Your task to perform on an android device: Open display settings Image 0: 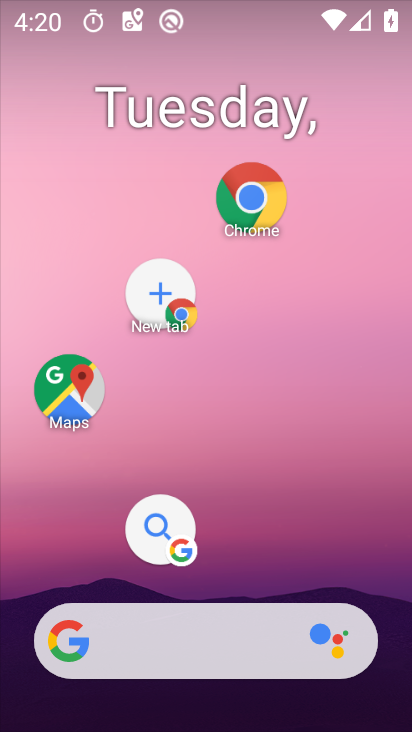
Step 0: drag from (261, 604) to (272, 184)
Your task to perform on an android device: Open display settings Image 1: 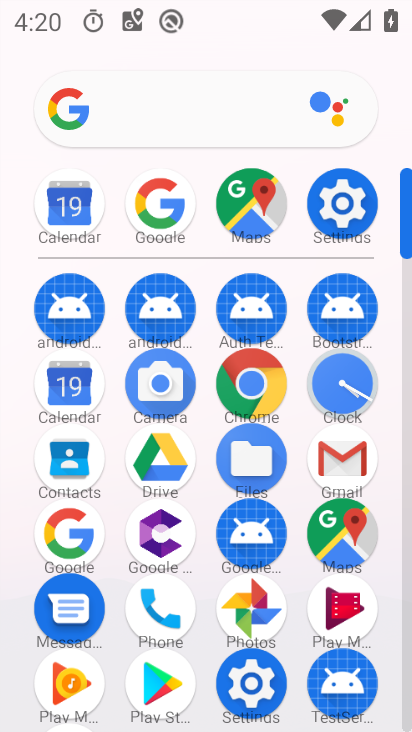
Step 1: click (348, 216)
Your task to perform on an android device: Open display settings Image 2: 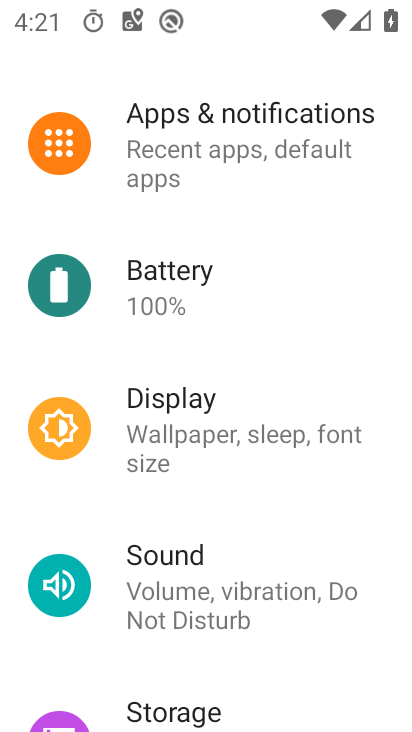
Step 2: click (209, 420)
Your task to perform on an android device: Open display settings Image 3: 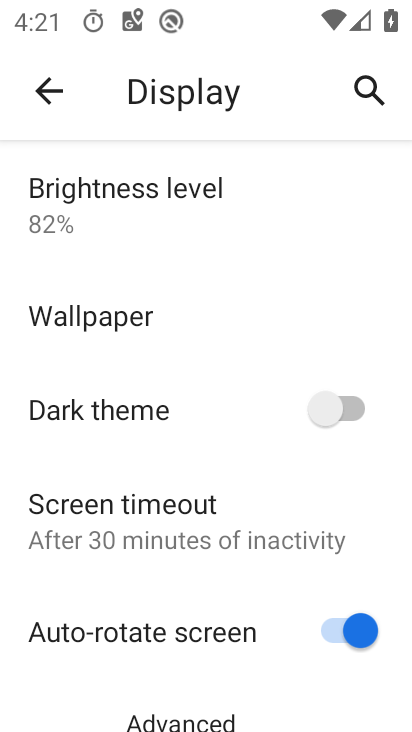
Step 3: drag from (186, 689) to (193, 222)
Your task to perform on an android device: Open display settings Image 4: 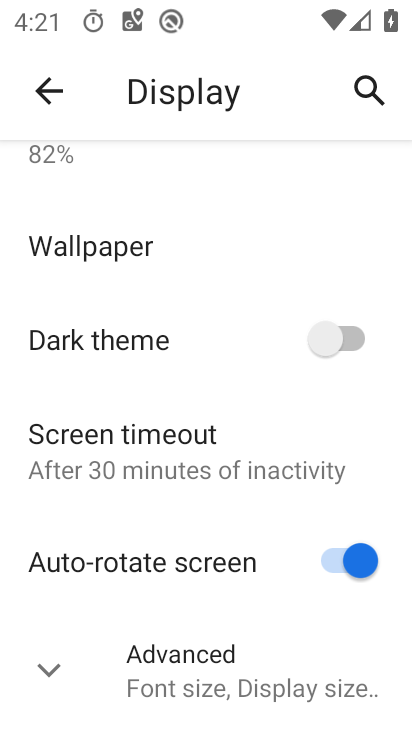
Step 4: click (160, 668)
Your task to perform on an android device: Open display settings Image 5: 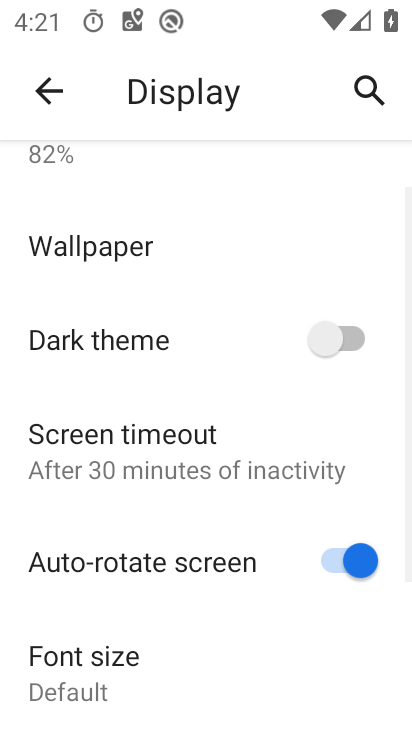
Step 5: task complete